Your task to perform on an android device: Go to settings Image 0: 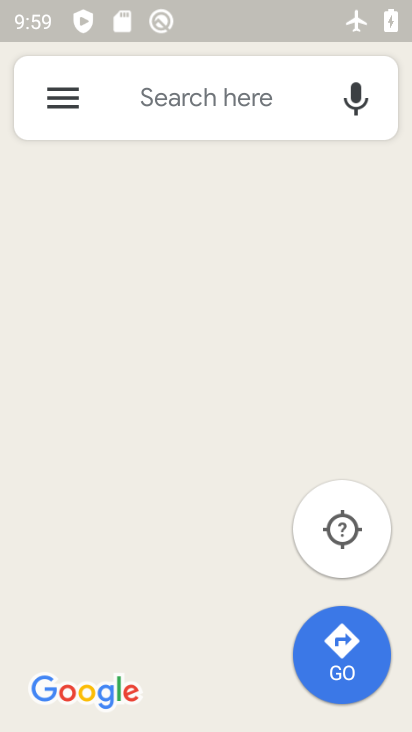
Step 0: press home button
Your task to perform on an android device: Go to settings Image 1: 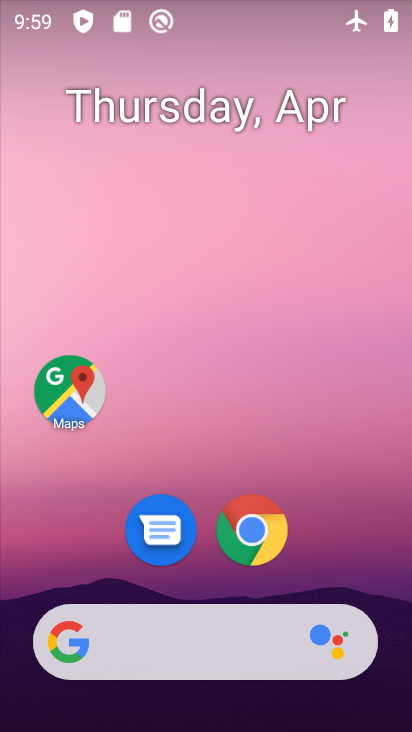
Step 1: drag from (216, 637) to (227, 188)
Your task to perform on an android device: Go to settings Image 2: 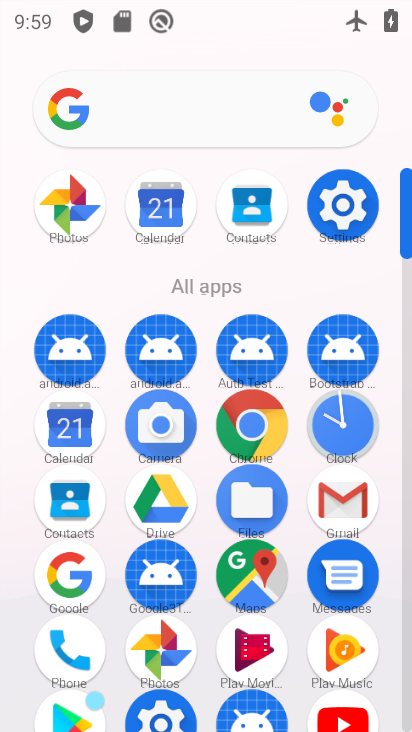
Step 2: click (344, 205)
Your task to perform on an android device: Go to settings Image 3: 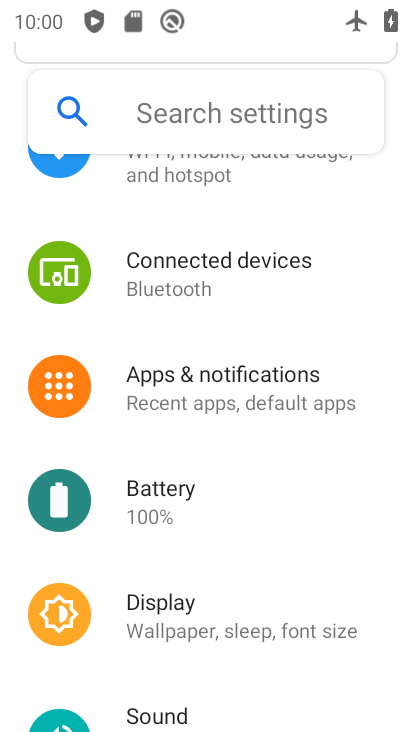
Step 3: task complete